Your task to perform on an android device: clear all cookies in the chrome app Image 0: 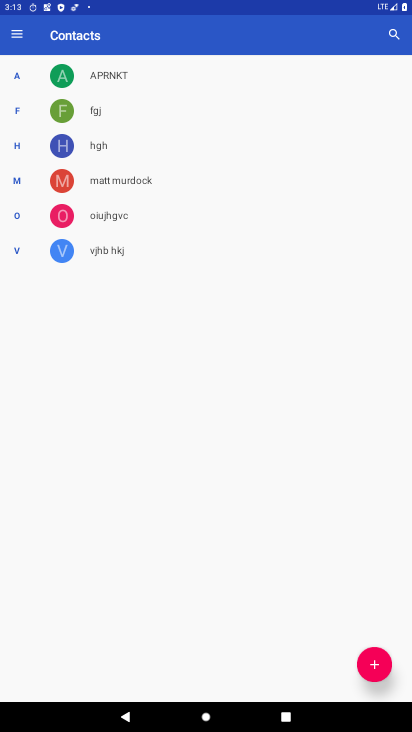
Step 0: press home button
Your task to perform on an android device: clear all cookies in the chrome app Image 1: 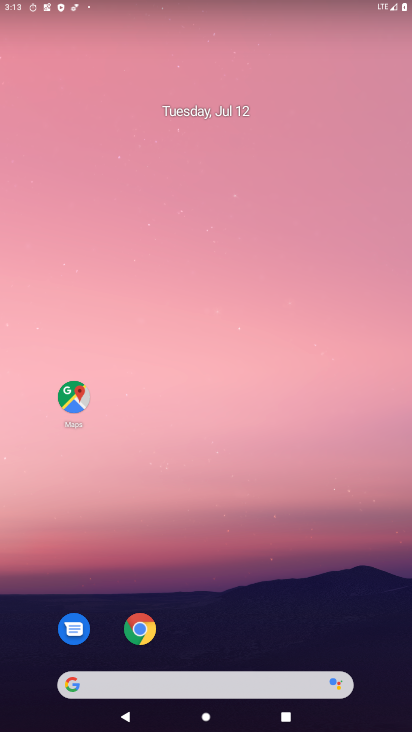
Step 1: drag from (229, 626) to (254, 496)
Your task to perform on an android device: clear all cookies in the chrome app Image 2: 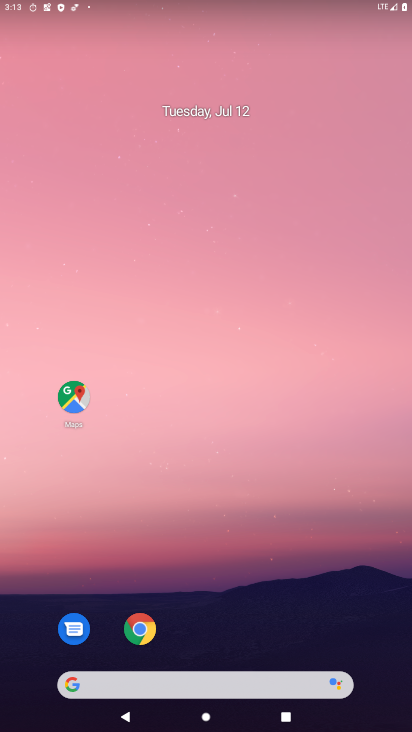
Step 2: drag from (307, 623) to (361, 22)
Your task to perform on an android device: clear all cookies in the chrome app Image 3: 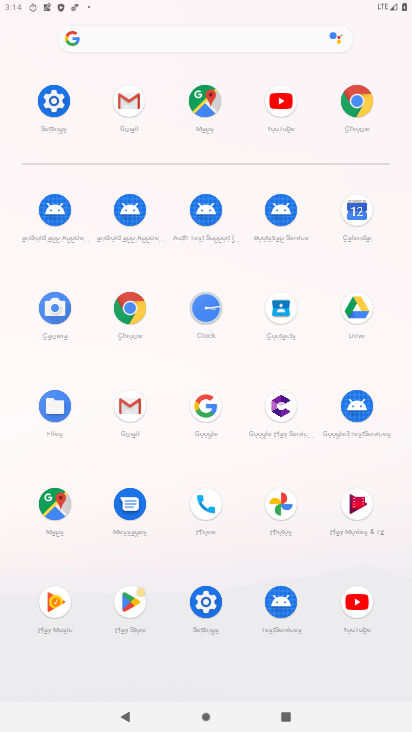
Step 3: click (143, 308)
Your task to perform on an android device: clear all cookies in the chrome app Image 4: 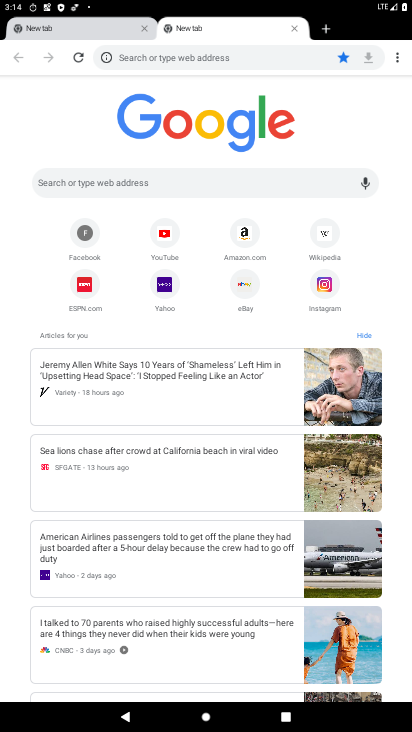
Step 4: click (400, 55)
Your task to perform on an android device: clear all cookies in the chrome app Image 5: 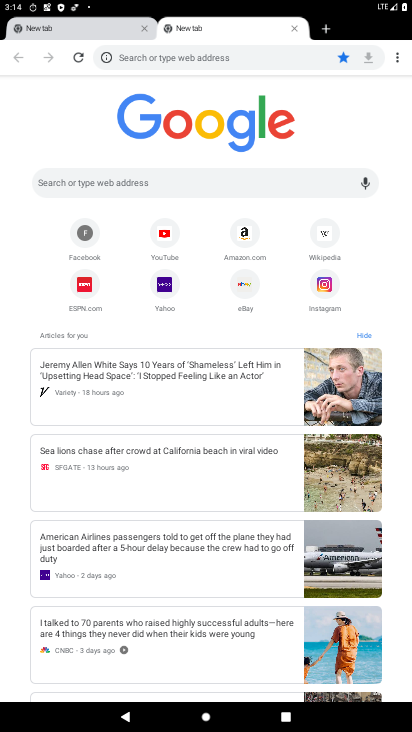
Step 5: click (286, 253)
Your task to perform on an android device: clear all cookies in the chrome app Image 6: 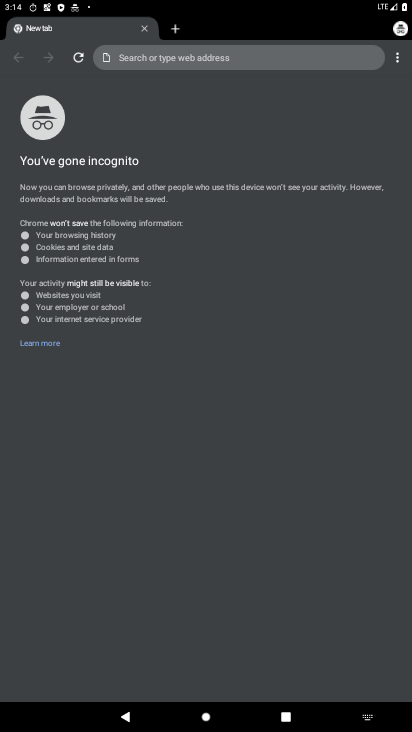
Step 6: press back button
Your task to perform on an android device: clear all cookies in the chrome app Image 7: 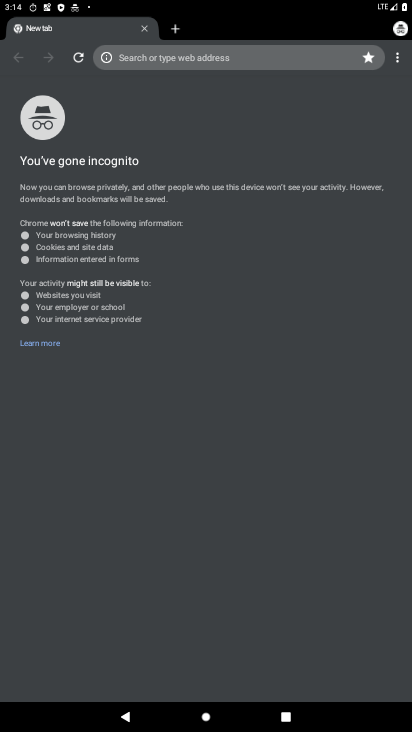
Step 7: drag from (400, 56) to (266, 229)
Your task to perform on an android device: clear all cookies in the chrome app Image 8: 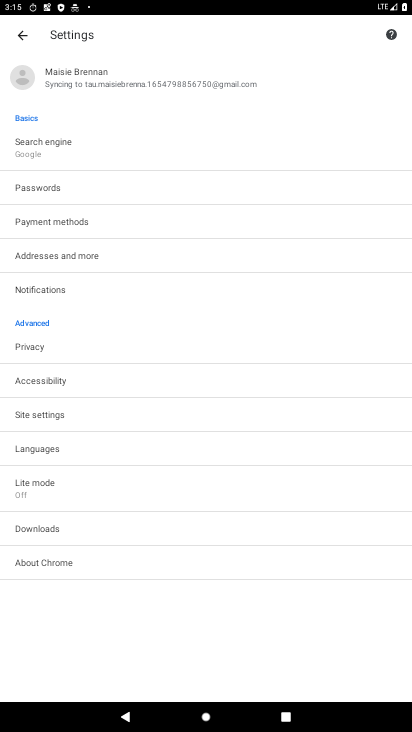
Step 8: click (19, 343)
Your task to perform on an android device: clear all cookies in the chrome app Image 9: 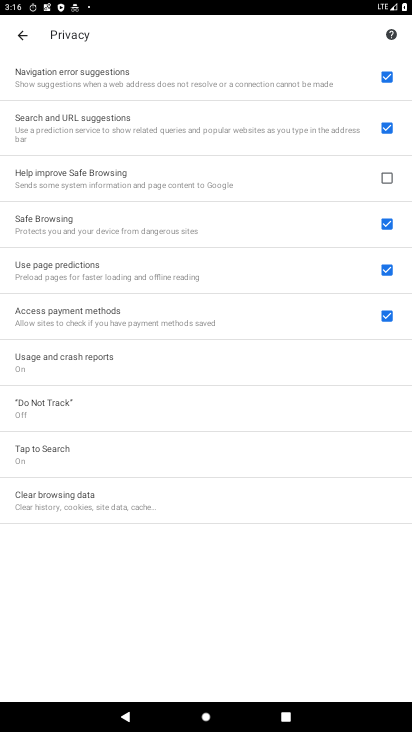
Step 9: click (36, 497)
Your task to perform on an android device: clear all cookies in the chrome app Image 10: 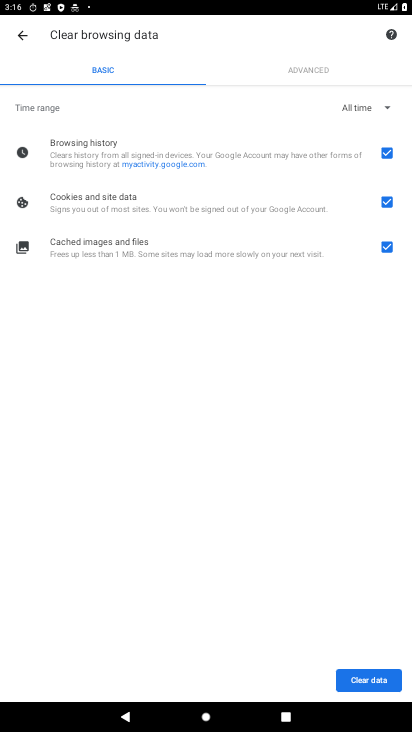
Step 10: click (377, 674)
Your task to perform on an android device: clear all cookies in the chrome app Image 11: 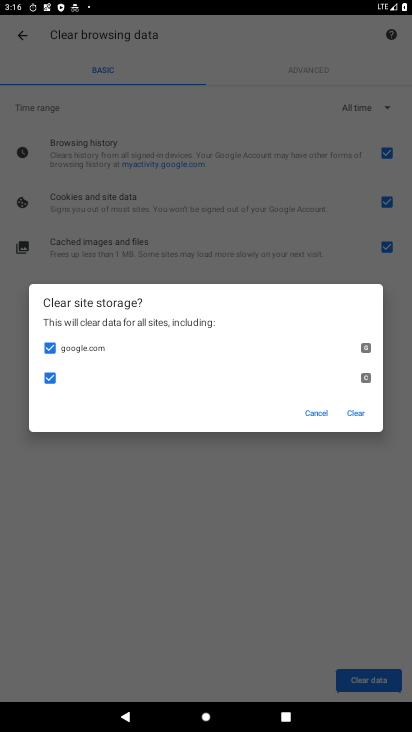
Step 11: click (354, 412)
Your task to perform on an android device: clear all cookies in the chrome app Image 12: 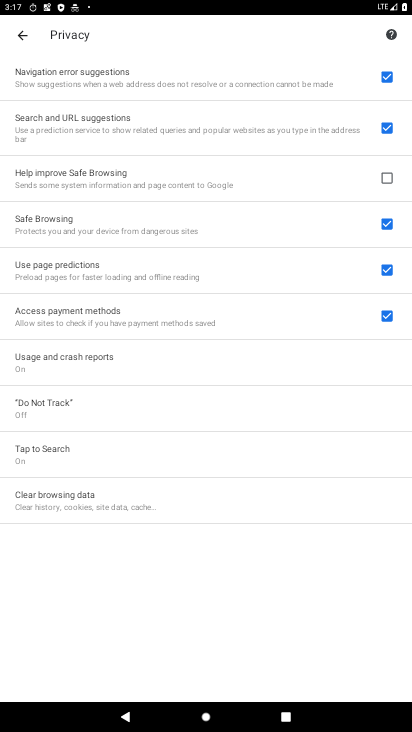
Step 12: task complete